Your task to perform on an android device: check storage Image 0: 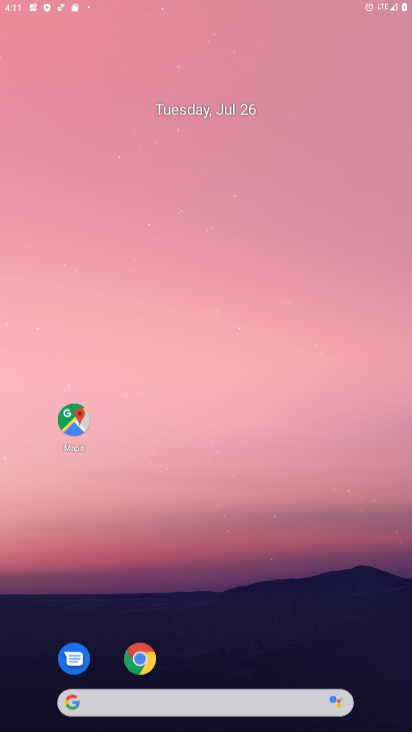
Step 0: press home button
Your task to perform on an android device: check storage Image 1: 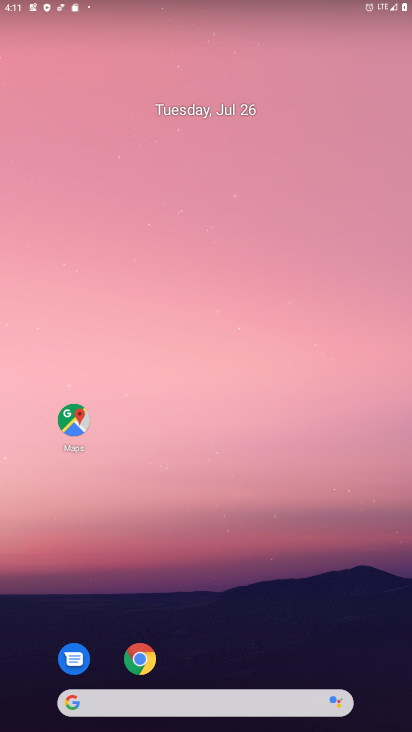
Step 1: drag from (248, 662) to (288, 0)
Your task to perform on an android device: check storage Image 2: 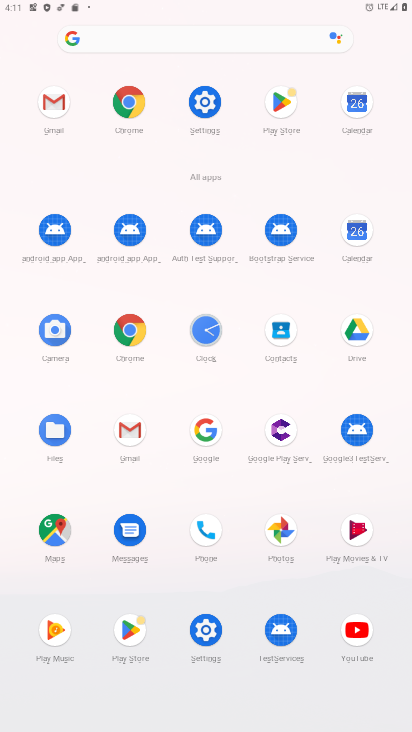
Step 2: click (204, 103)
Your task to perform on an android device: check storage Image 3: 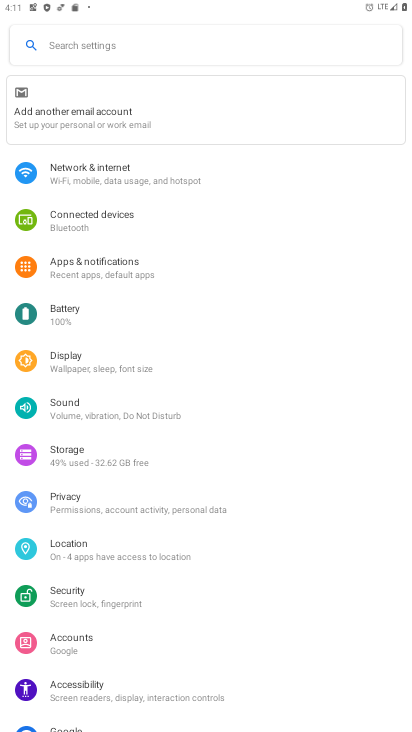
Step 3: click (71, 460)
Your task to perform on an android device: check storage Image 4: 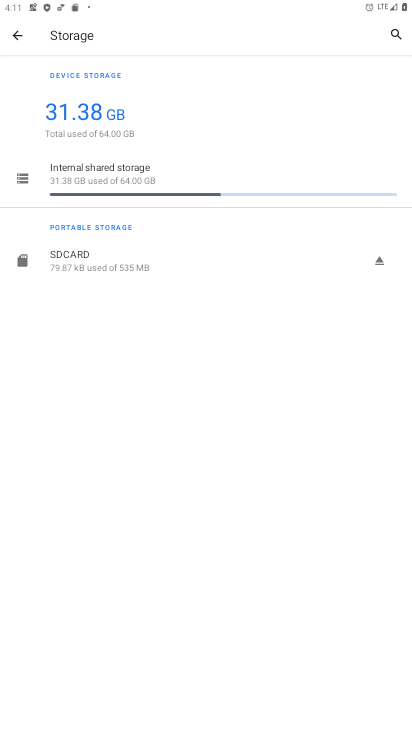
Step 4: task complete